Your task to perform on an android device: Is it going to rain this weekend? Image 0: 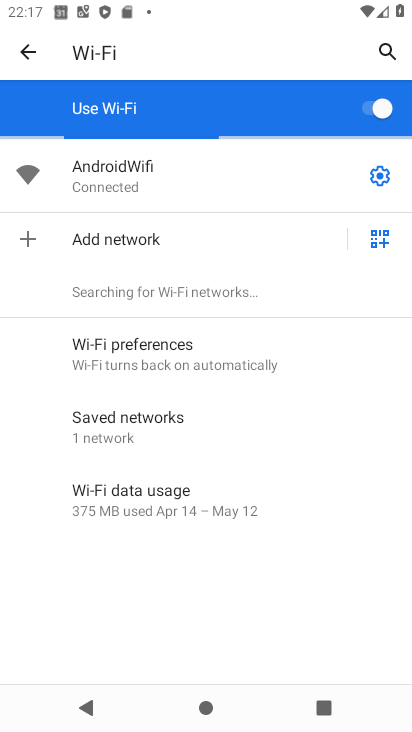
Step 0: press home button
Your task to perform on an android device: Is it going to rain this weekend? Image 1: 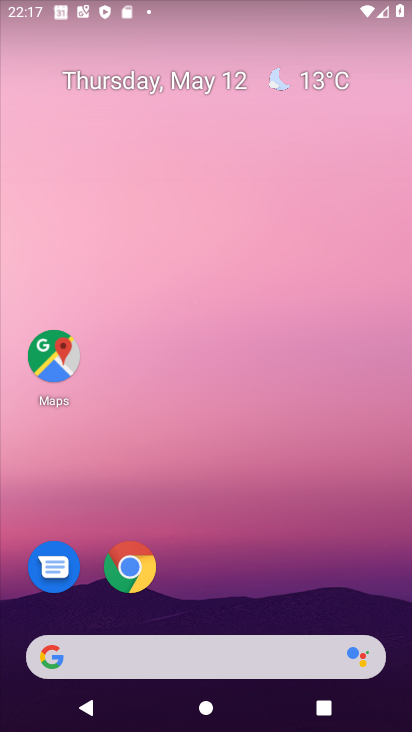
Step 1: click (323, 75)
Your task to perform on an android device: Is it going to rain this weekend? Image 2: 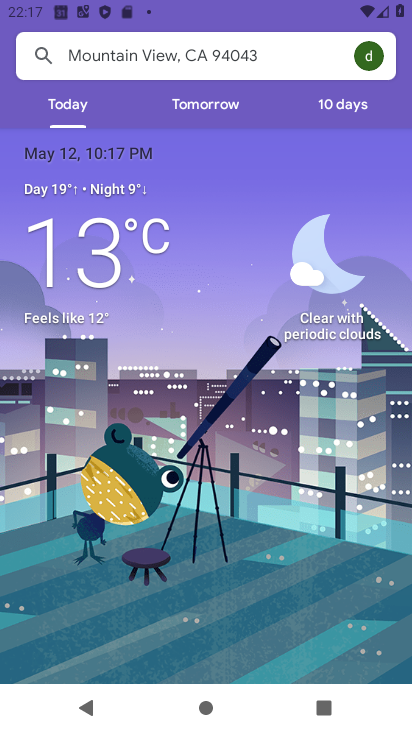
Step 2: click (350, 102)
Your task to perform on an android device: Is it going to rain this weekend? Image 3: 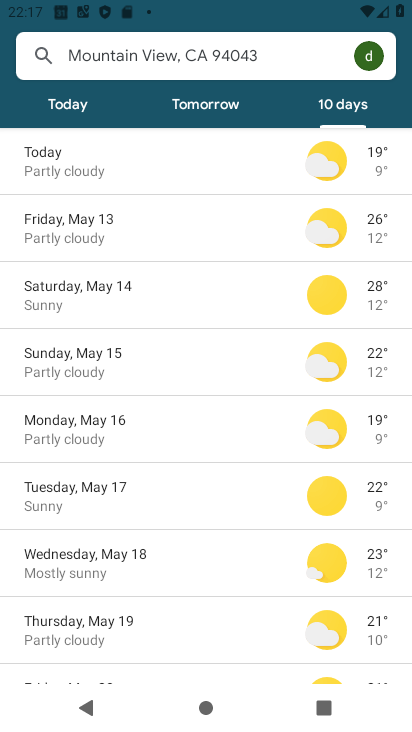
Step 3: task complete